Your task to perform on an android device: manage bookmarks in the chrome app Image 0: 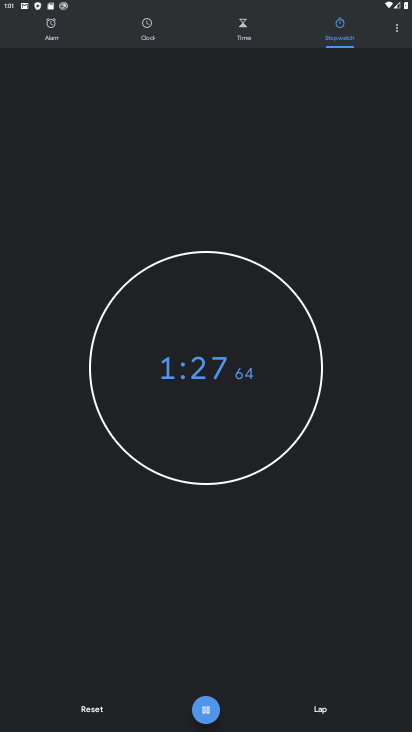
Step 0: press home button
Your task to perform on an android device: manage bookmarks in the chrome app Image 1: 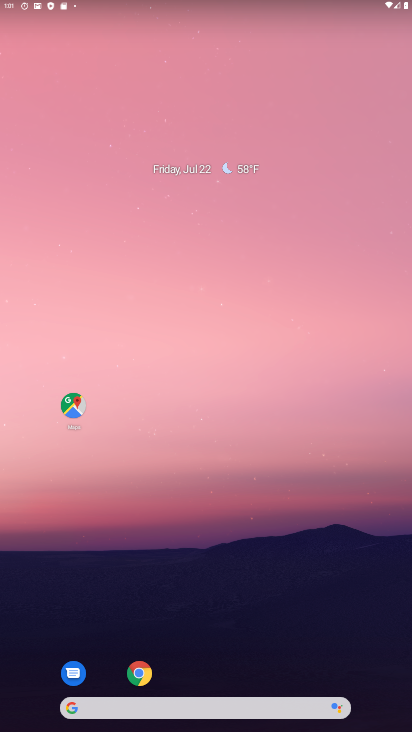
Step 1: click (144, 673)
Your task to perform on an android device: manage bookmarks in the chrome app Image 2: 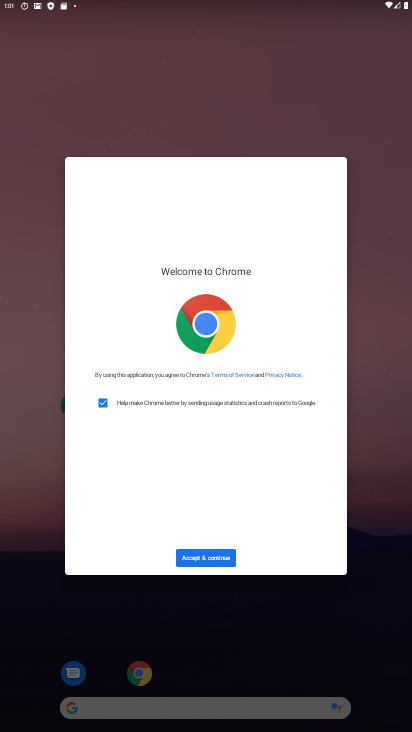
Step 2: click (222, 552)
Your task to perform on an android device: manage bookmarks in the chrome app Image 3: 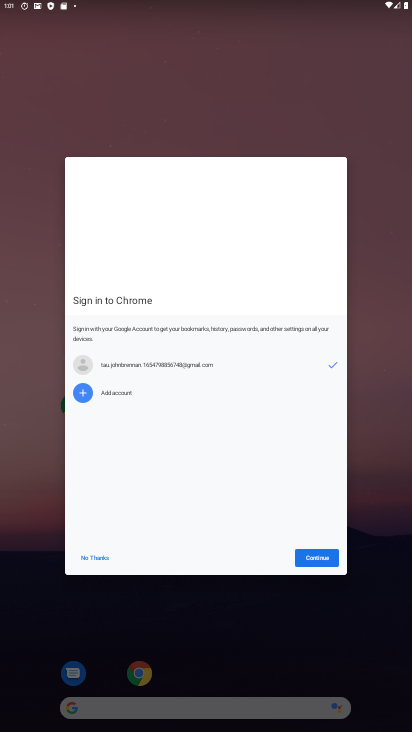
Step 3: click (329, 559)
Your task to perform on an android device: manage bookmarks in the chrome app Image 4: 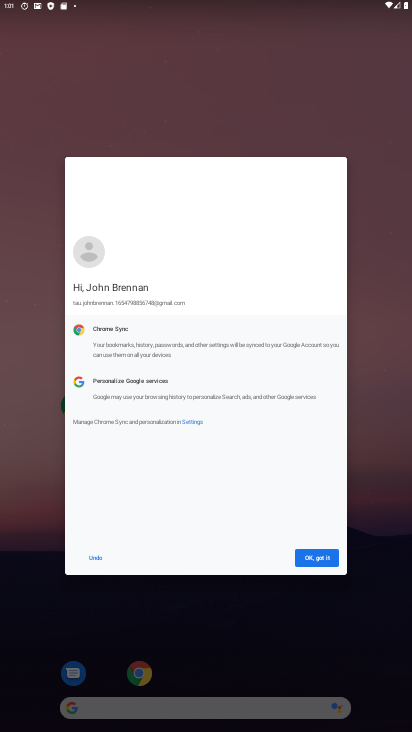
Step 4: click (309, 557)
Your task to perform on an android device: manage bookmarks in the chrome app Image 5: 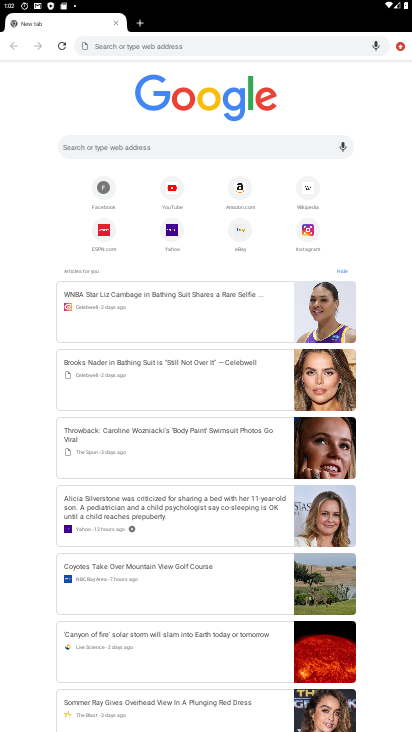
Step 5: click (395, 47)
Your task to perform on an android device: manage bookmarks in the chrome app Image 6: 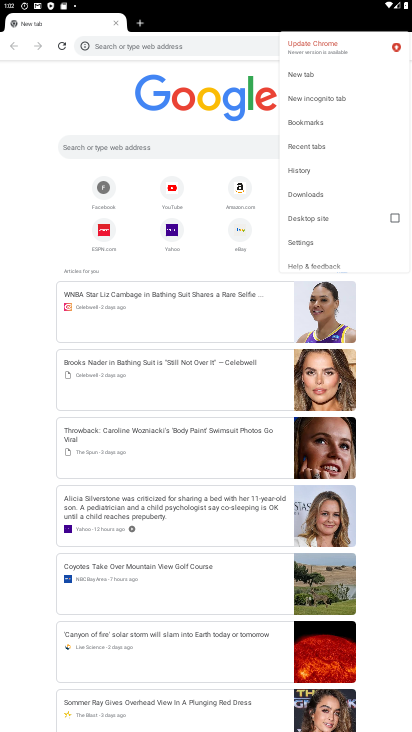
Step 6: click (326, 119)
Your task to perform on an android device: manage bookmarks in the chrome app Image 7: 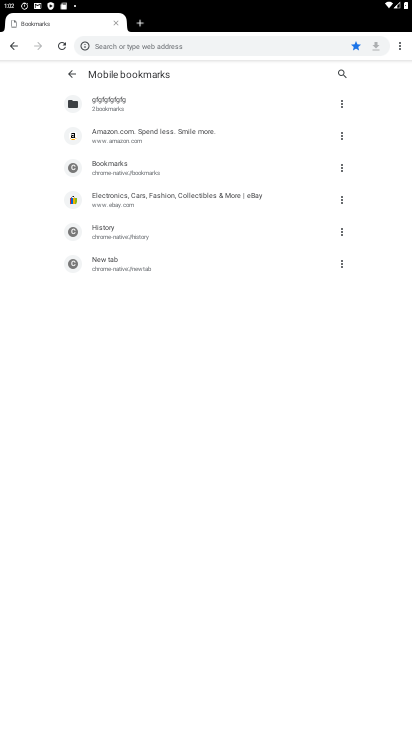
Step 7: click (346, 102)
Your task to perform on an android device: manage bookmarks in the chrome app Image 8: 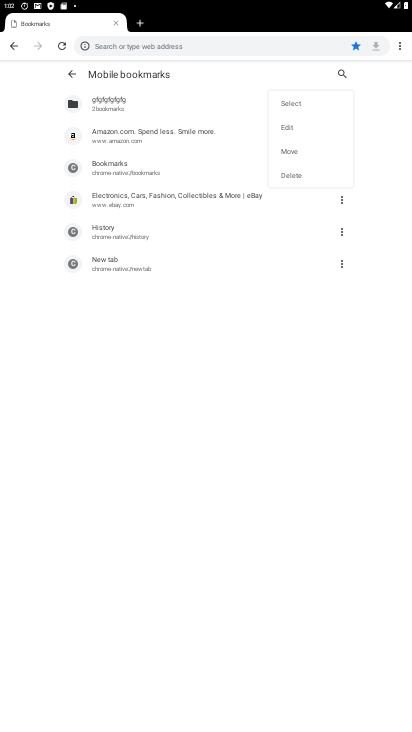
Step 8: click (297, 175)
Your task to perform on an android device: manage bookmarks in the chrome app Image 9: 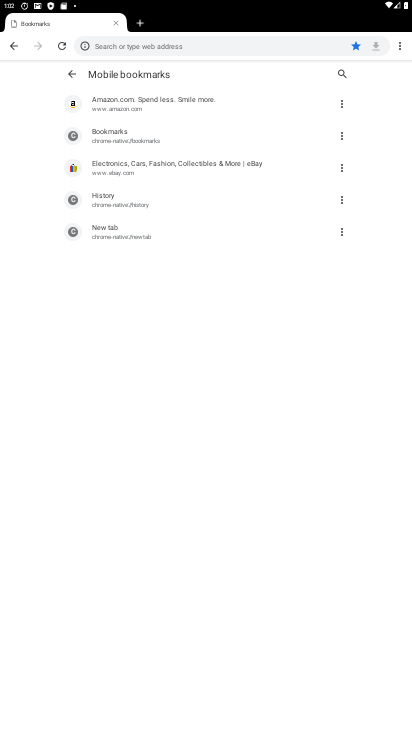
Step 9: task complete